Your task to perform on an android device: turn off wifi Image 0: 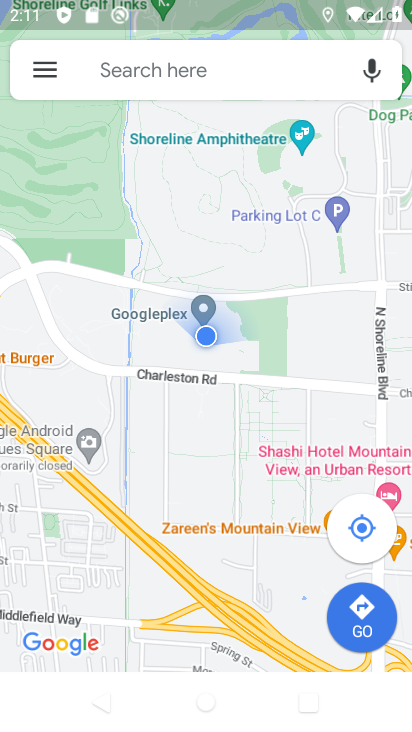
Step 0: drag from (272, 8) to (148, 318)
Your task to perform on an android device: turn off wifi Image 1: 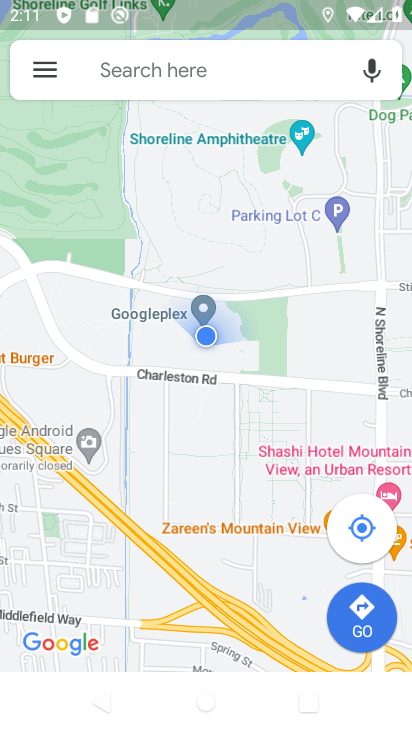
Step 1: drag from (217, 5) to (210, 384)
Your task to perform on an android device: turn off wifi Image 2: 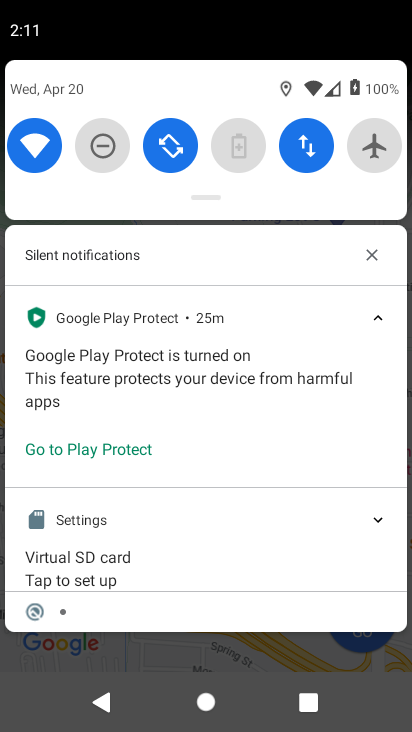
Step 2: click (24, 142)
Your task to perform on an android device: turn off wifi Image 3: 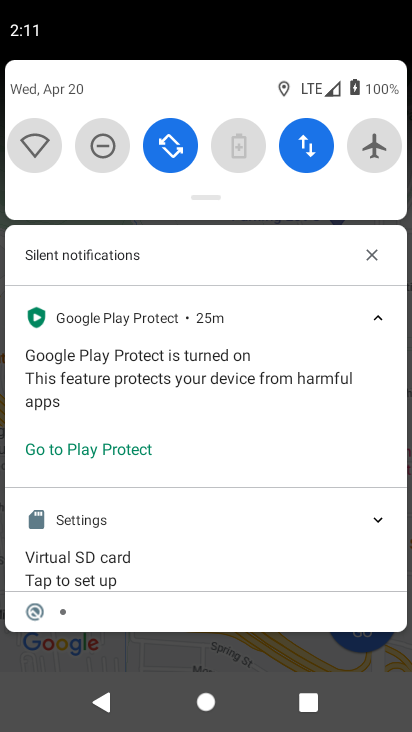
Step 3: task complete